Your task to perform on an android device: What's on my calendar today? Image 0: 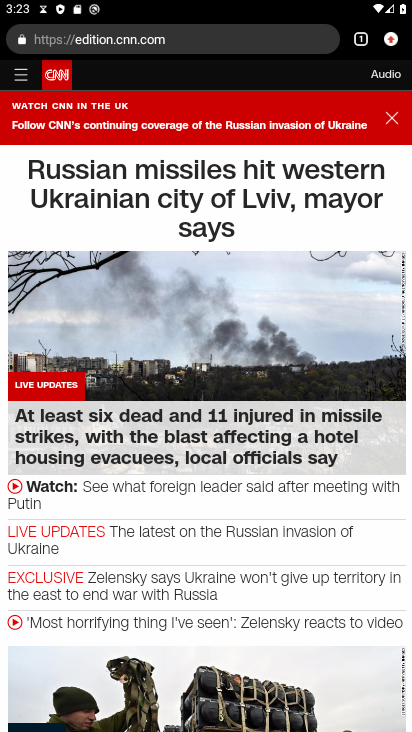
Step 0: press home button
Your task to perform on an android device: What's on my calendar today? Image 1: 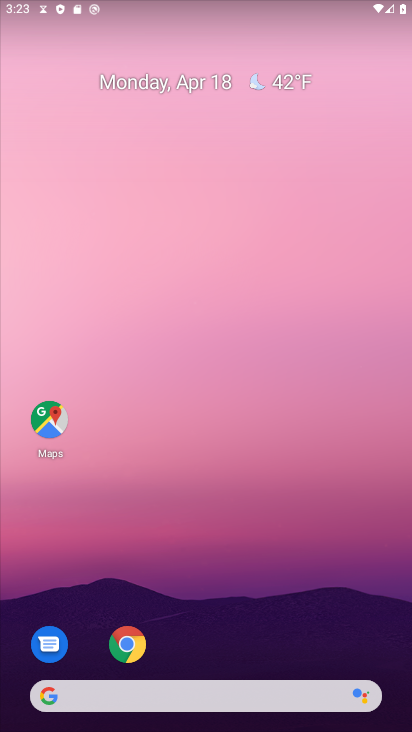
Step 1: drag from (238, 635) to (232, 147)
Your task to perform on an android device: What's on my calendar today? Image 2: 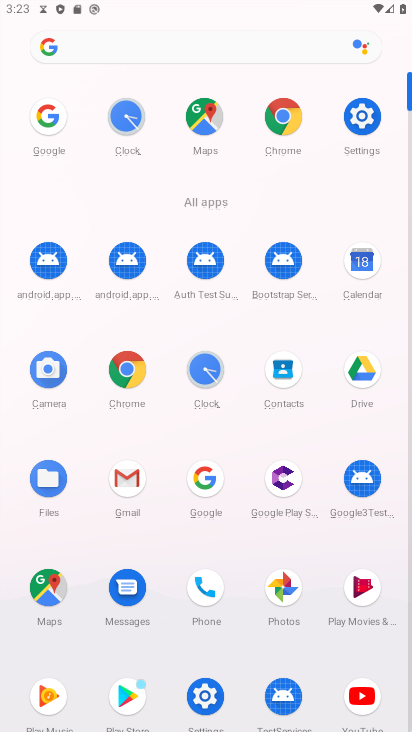
Step 2: click (358, 263)
Your task to perform on an android device: What's on my calendar today? Image 3: 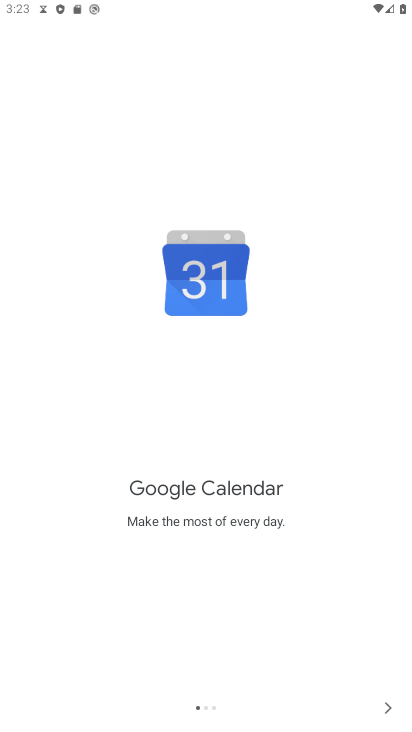
Step 3: click (387, 709)
Your task to perform on an android device: What's on my calendar today? Image 4: 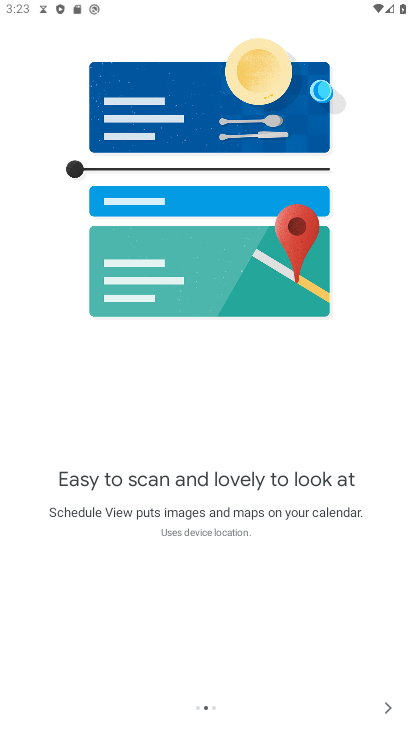
Step 4: click (387, 702)
Your task to perform on an android device: What's on my calendar today? Image 5: 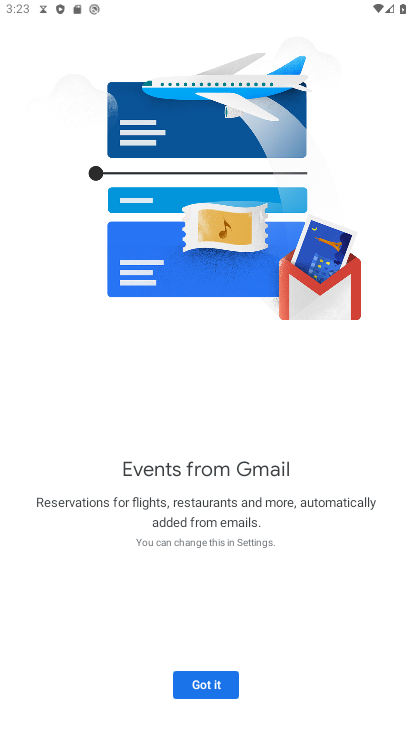
Step 5: click (231, 689)
Your task to perform on an android device: What's on my calendar today? Image 6: 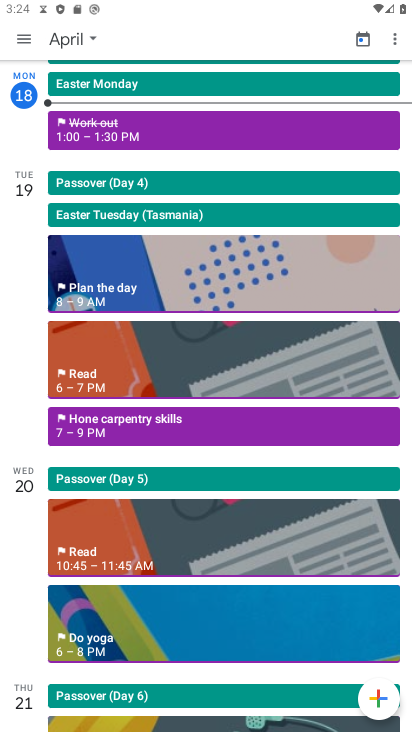
Step 6: task complete